Your task to perform on an android device: Go to Wikipedia Image 0: 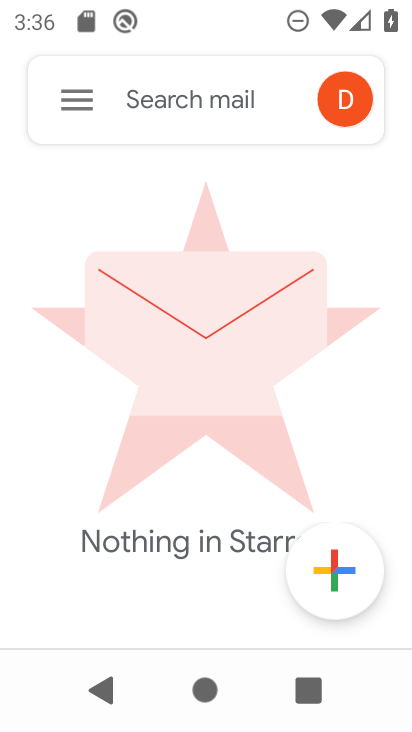
Step 0: press home button
Your task to perform on an android device: Go to Wikipedia Image 1: 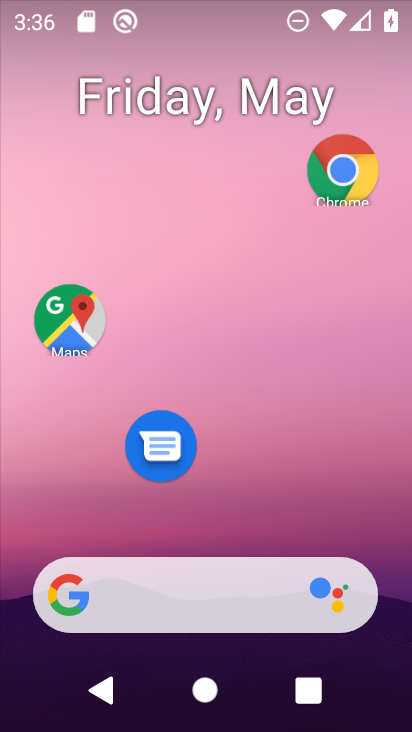
Step 1: click (336, 181)
Your task to perform on an android device: Go to Wikipedia Image 2: 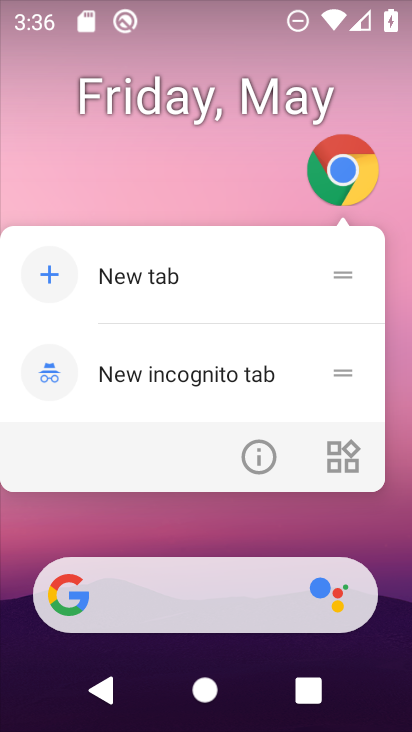
Step 2: click (177, 171)
Your task to perform on an android device: Go to Wikipedia Image 3: 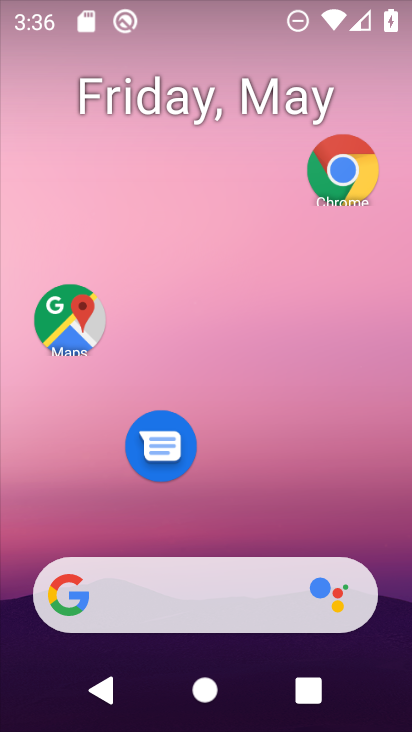
Step 3: drag from (271, 530) to (274, 227)
Your task to perform on an android device: Go to Wikipedia Image 4: 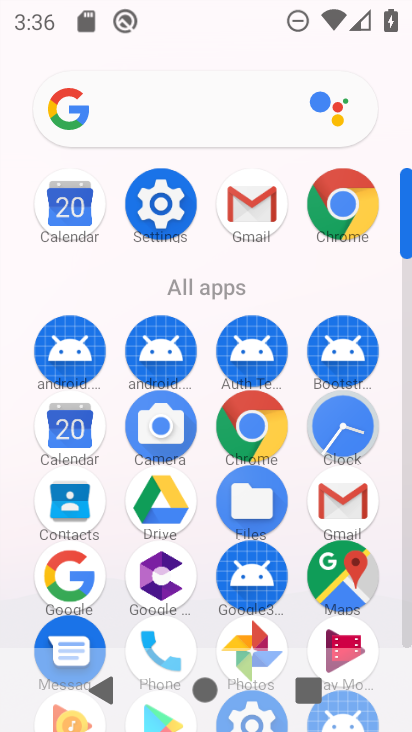
Step 4: drag from (295, 204) to (295, 28)
Your task to perform on an android device: Go to Wikipedia Image 5: 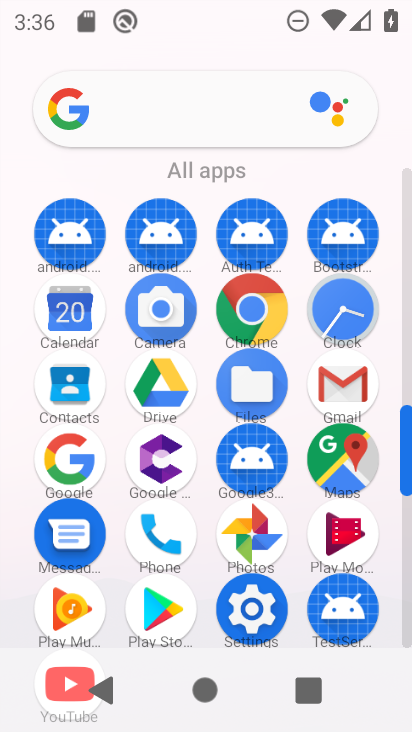
Step 5: click (237, 313)
Your task to perform on an android device: Go to Wikipedia Image 6: 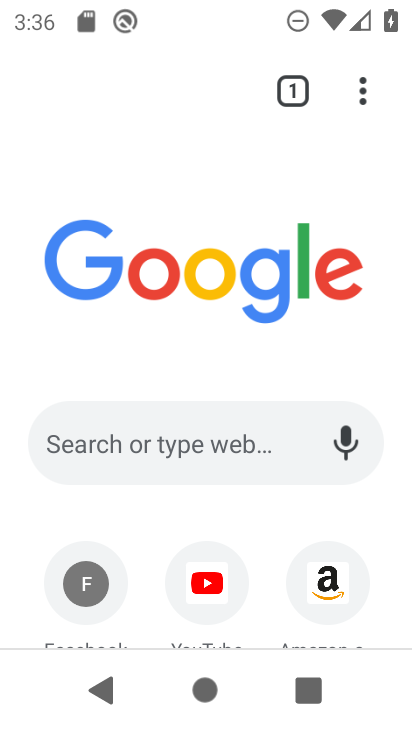
Step 6: type "Wikipedia"
Your task to perform on an android device: Go to Wikipedia Image 7: 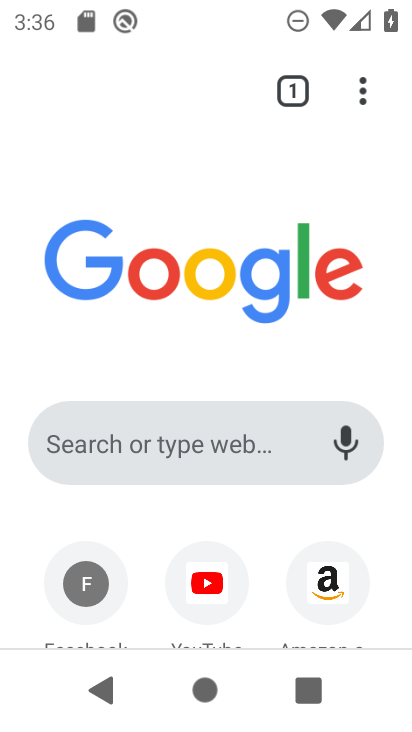
Step 7: click (77, 451)
Your task to perform on an android device: Go to Wikipedia Image 8: 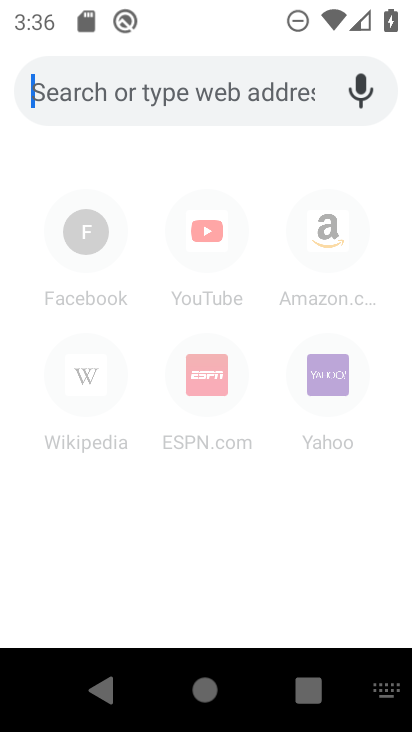
Step 8: type "Wikipedia"
Your task to perform on an android device: Go to Wikipedia Image 9: 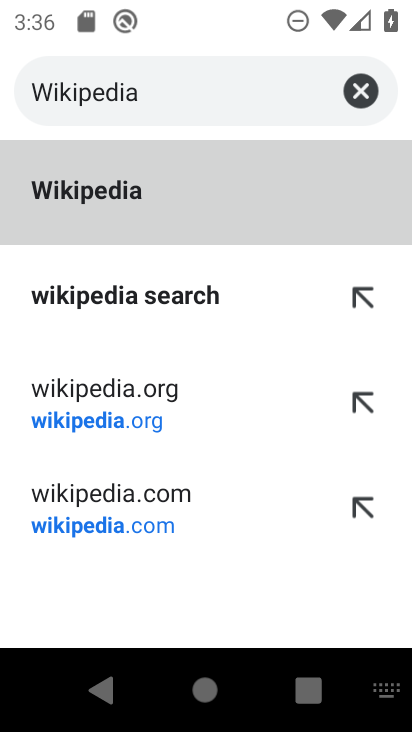
Step 9: click (86, 179)
Your task to perform on an android device: Go to Wikipedia Image 10: 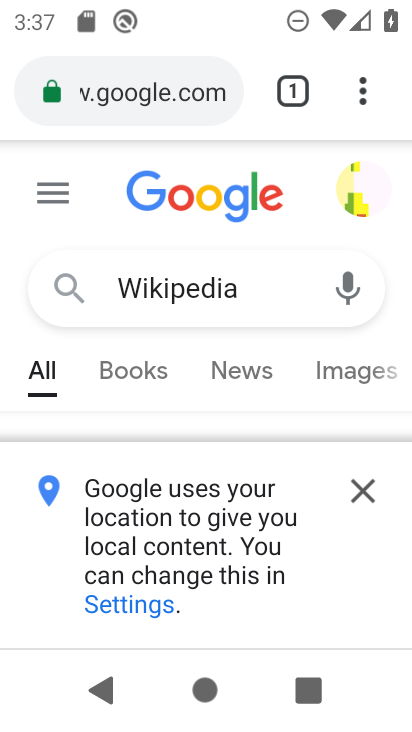
Step 10: click (365, 493)
Your task to perform on an android device: Go to Wikipedia Image 11: 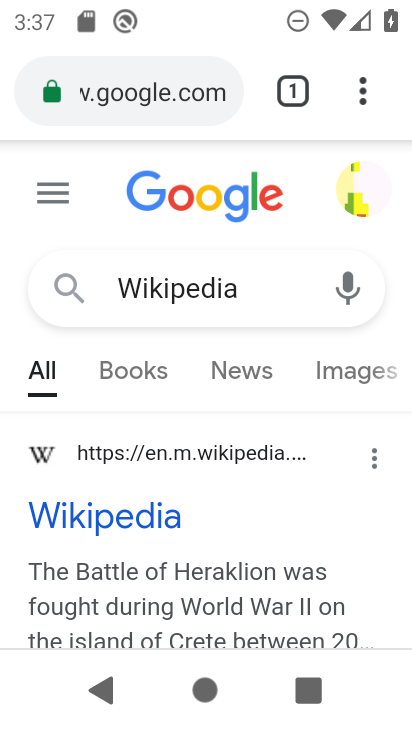
Step 11: click (153, 516)
Your task to perform on an android device: Go to Wikipedia Image 12: 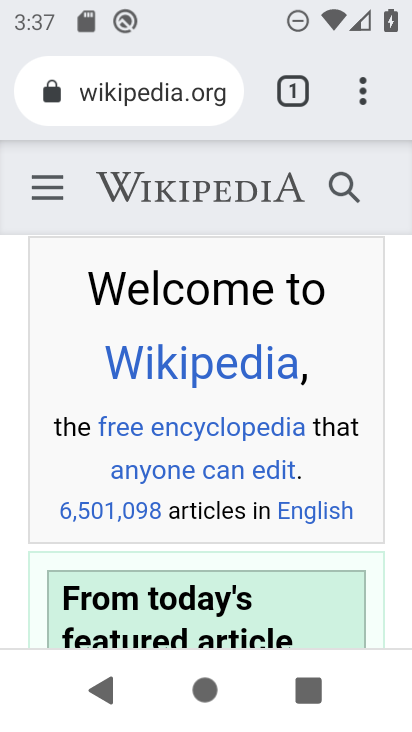
Step 12: task complete